Your task to perform on an android device: What's the latest video from GameSpot Reviews? Image 0: 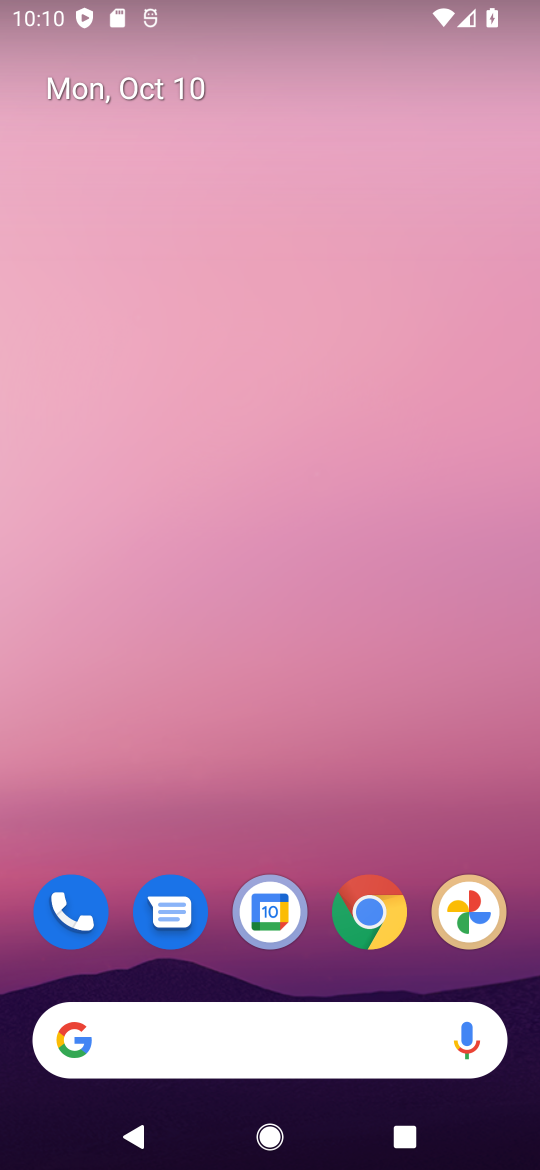
Step 0: click (64, 1035)
Your task to perform on an android device: What's the latest video from GameSpot Reviews? Image 1: 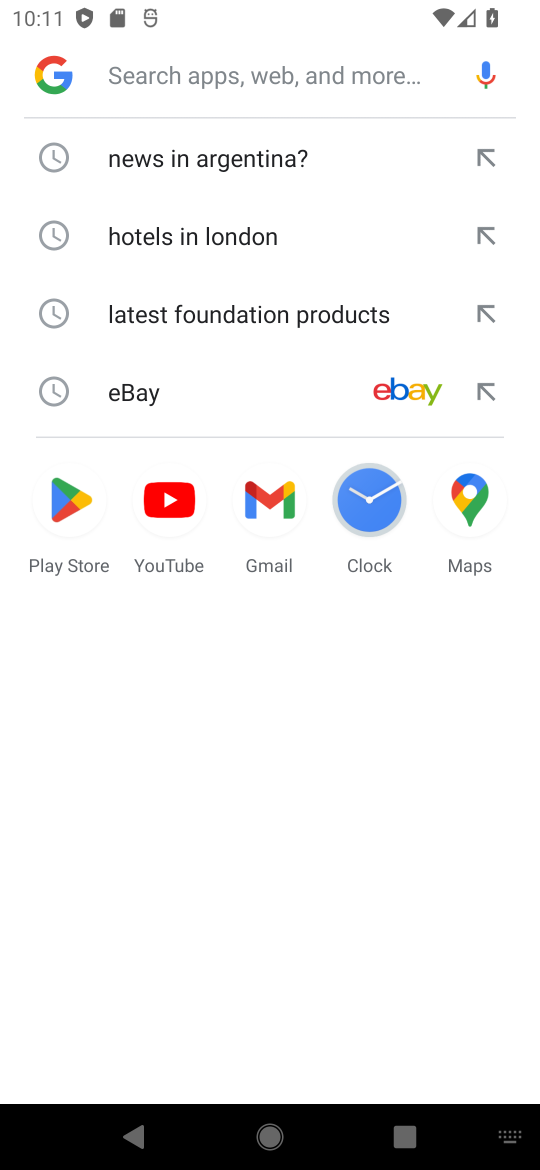
Step 1: type "latest video from gamespot reviews?"
Your task to perform on an android device: What's the latest video from GameSpot Reviews? Image 2: 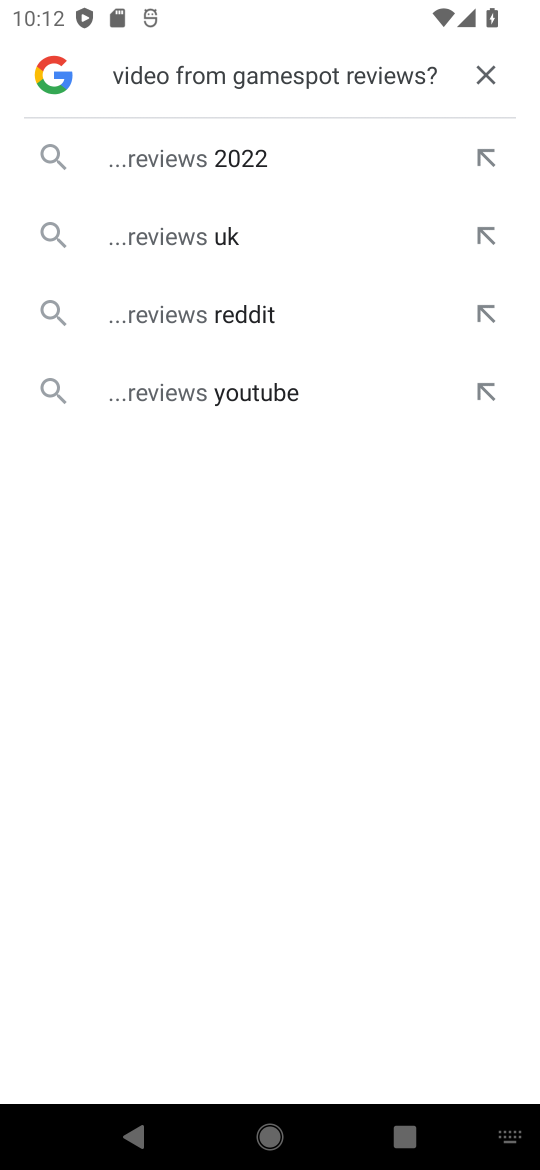
Step 2: task complete